Your task to perform on an android device: Check the news Image 0: 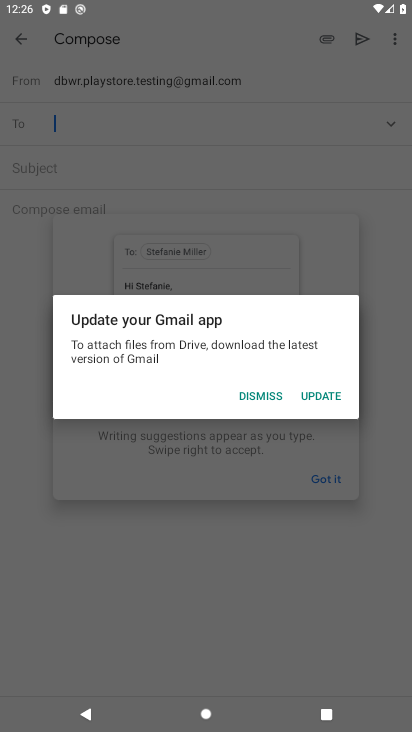
Step 0: press home button
Your task to perform on an android device: Check the news Image 1: 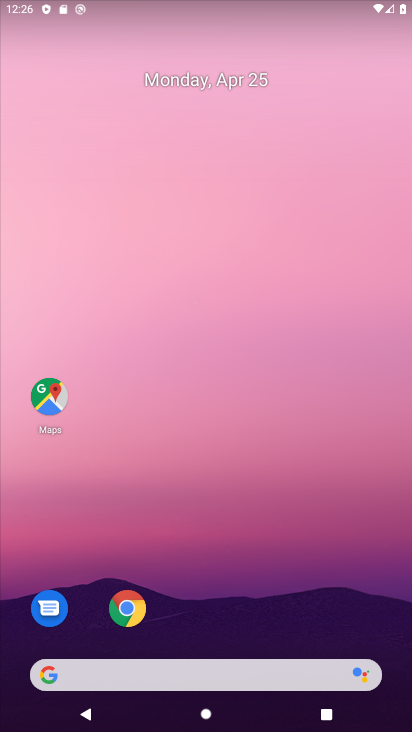
Step 1: click (143, 612)
Your task to perform on an android device: Check the news Image 2: 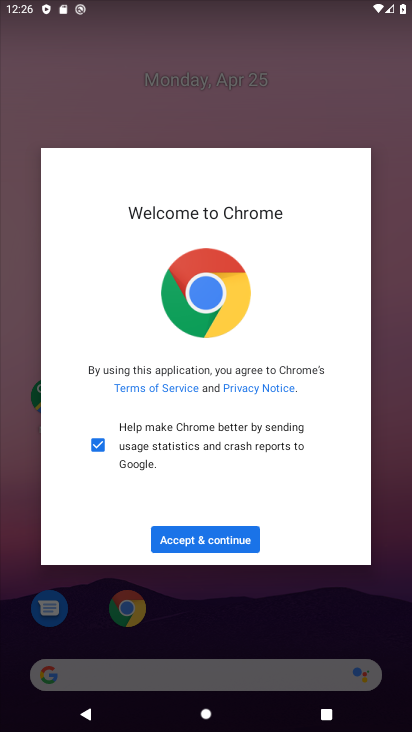
Step 2: click (204, 543)
Your task to perform on an android device: Check the news Image 3: 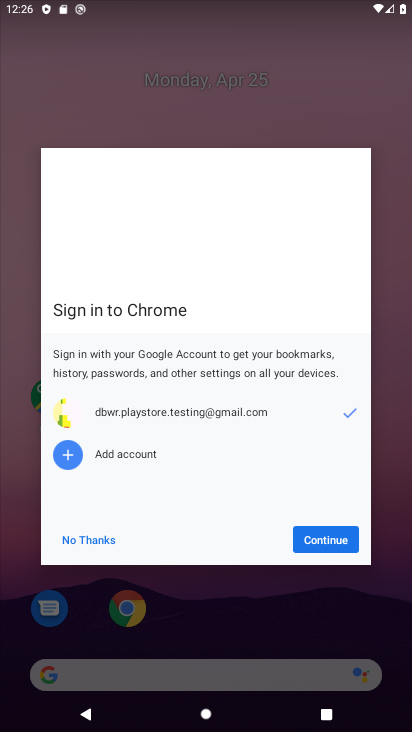
Step 3: click (328, 546)
Your task to perform on an android device: Check the news Image 4: 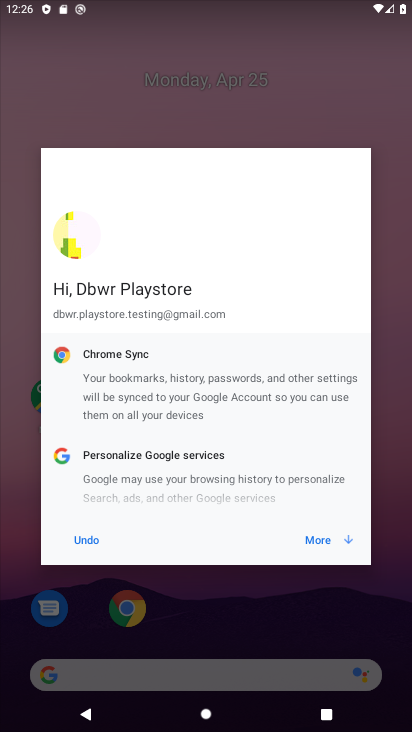
Step 4: click (328, 546)
Your task to perform on an android device: Check the news Image 5: 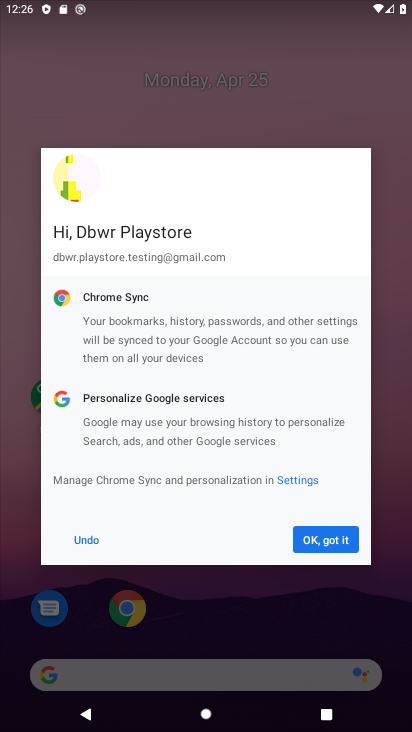
Step 5: click (329, 546)
Your task to perform on an android device: Check the news Image 6: 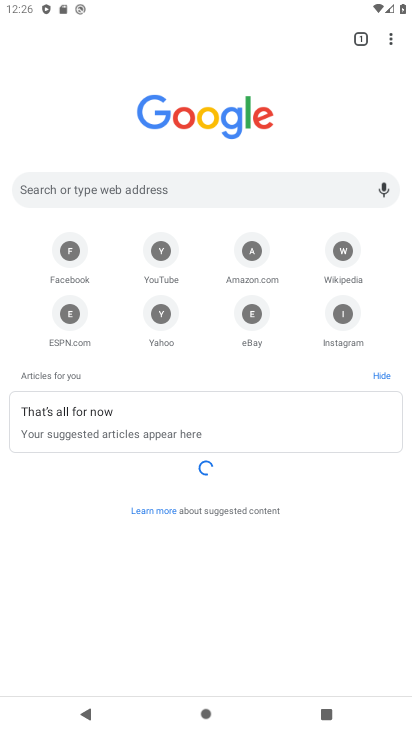
Step 6: click (215, 190)
Your task to perform on an android device: Check the news Image 7: 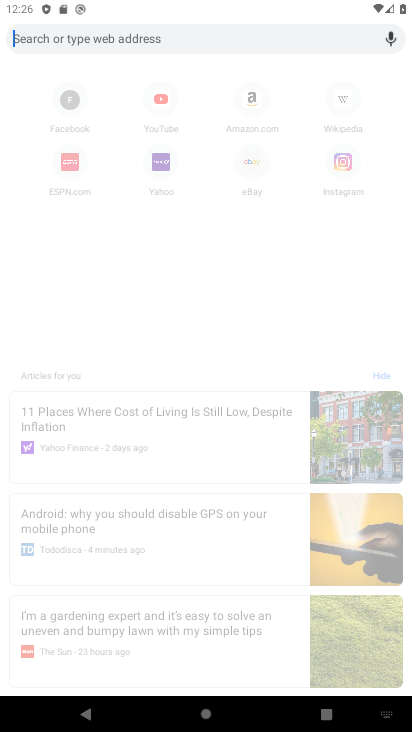
Step 7: type "news"
Your task to perform on an android device: Check the news Image 8: 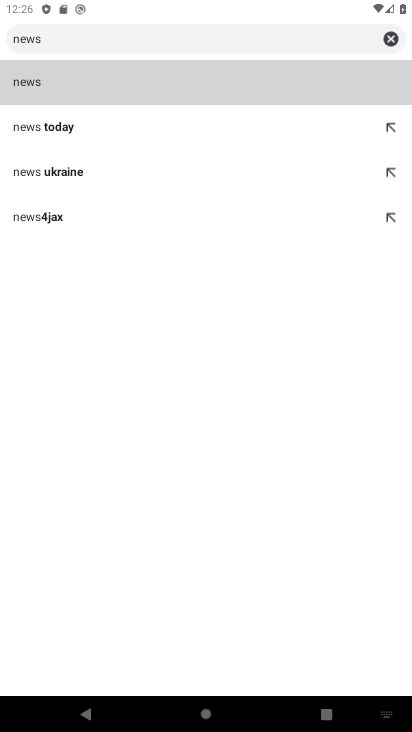
Step 8: click (209, 83)
Your task to perform on an android device: Check the news Image 9: 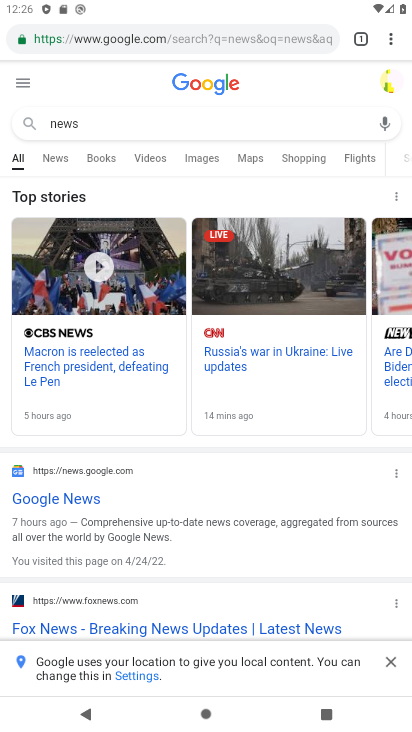
Step 9: task complete